Your task to perform on an android device: Open Google Image 0: 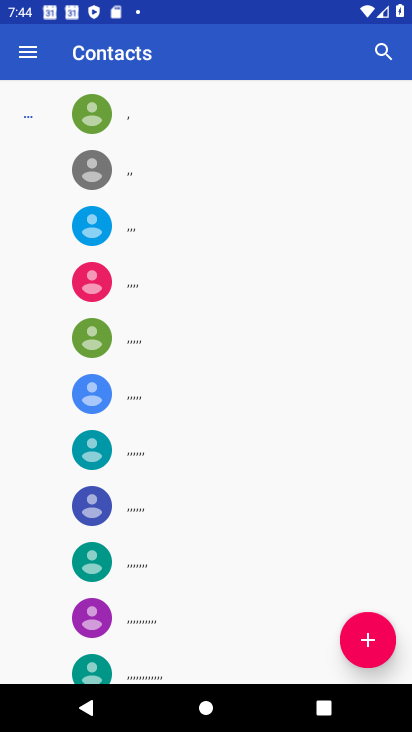
Step 0: press back button
Your task to perform on an android device: Open Google Image 1: 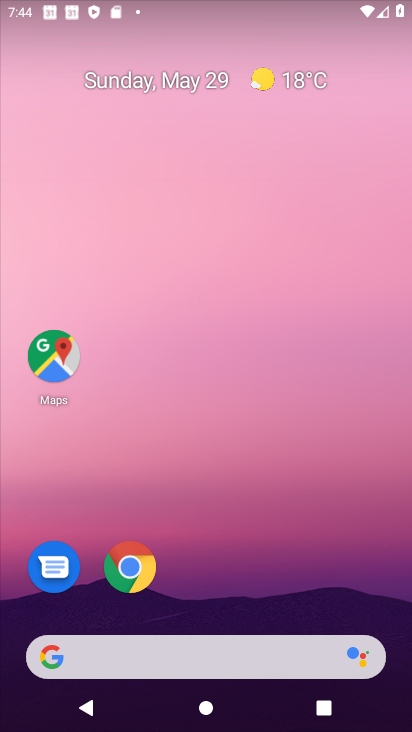
Step 1: drag from (237, 593) to (283, 147)
Your task to perform on an android device: Open Google Image 2: 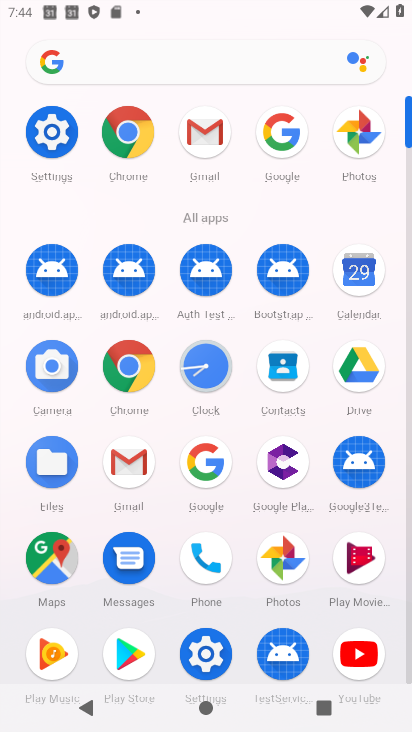
Step 2: click (277, 131)
Your task to perform on an android device: Open Google Image 3: 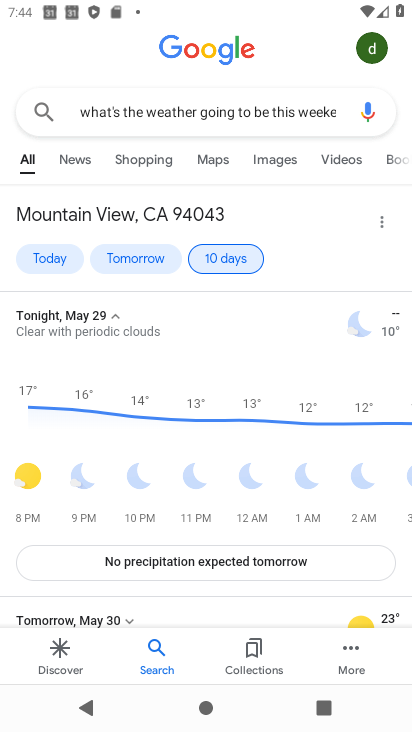
Step 3: task complete